Your task to perform on an android device: turn off improve location accuracy Image 0: 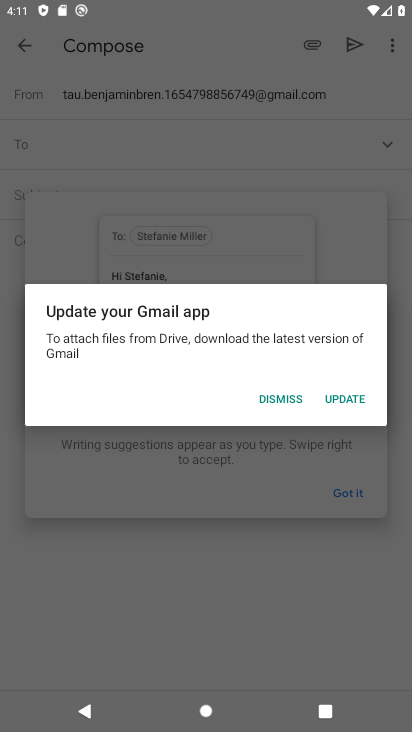
Step 0: press home button
Your task to perform on an android device: turn off improve location accuracy Image 1: 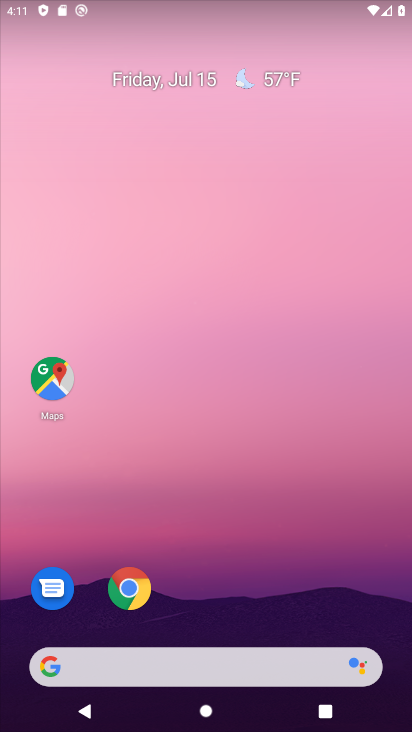
Step 1: drag from (223, 674) to (216, 164)
Your task to perform on an android device: turn off improve location accuracy Image 2: 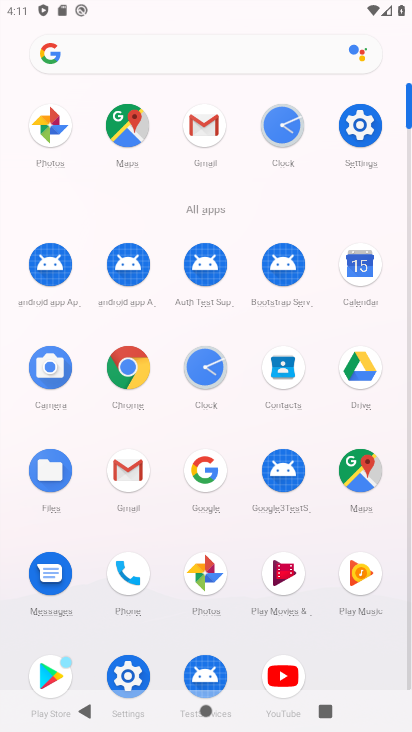
Step 2: click (359, 123)
Your task to perform on an android device: turn off improve location accuracy Image 3: 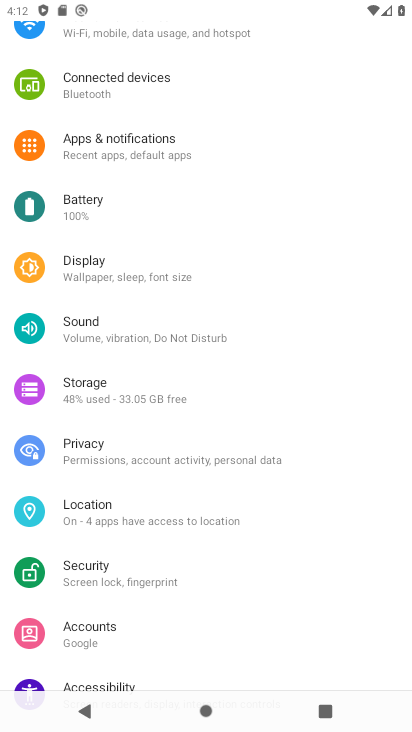
Step 3: click (117, 520)
Your task to perform on an android device: turn off improve location accuracy Image 4: 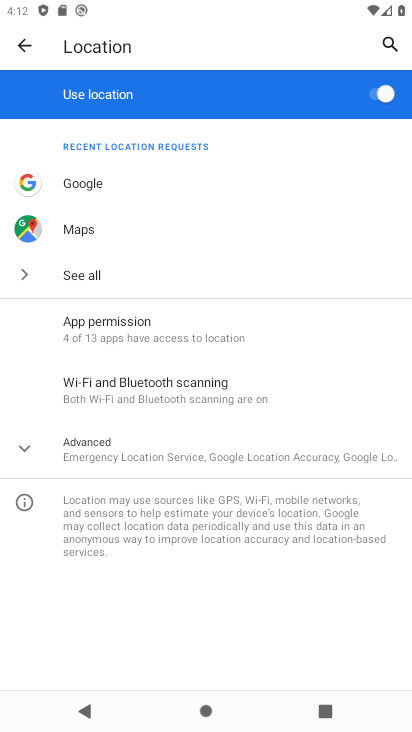
Step 4: click (136, 459)
Your task to perform on an android device: turn off improve location accuracy Image 5: 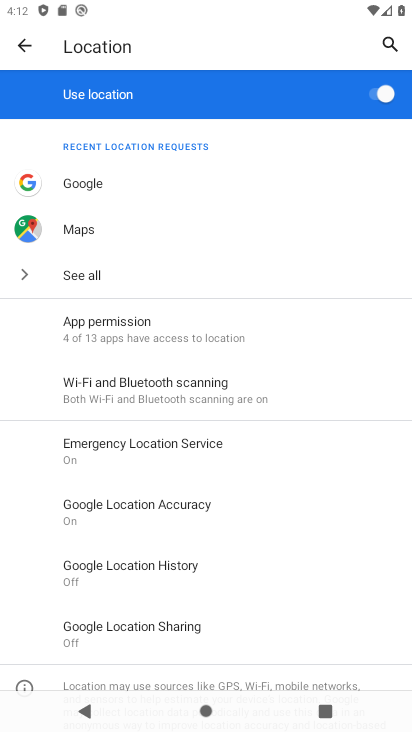
Step 5: click (130, 506)
Your task to perform on an android device: turn off improve location accuracy Image 6: 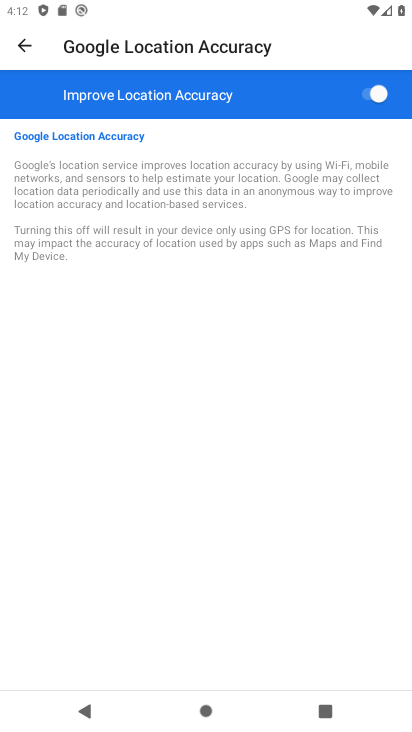
Step 6: click (365, 98)
Your task to perform on an android device: turn off improve location accuracy Image 7: 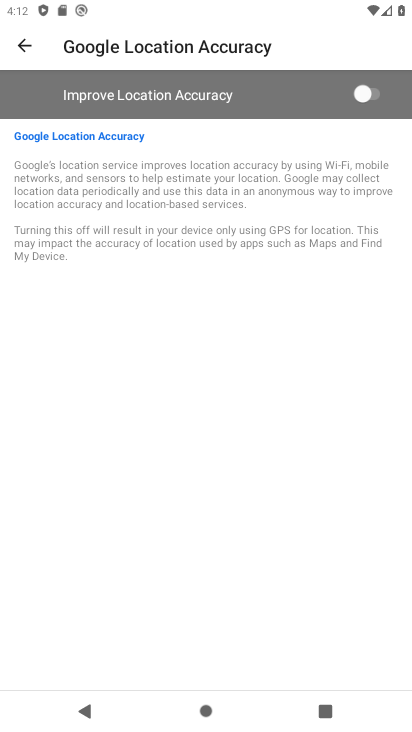
Step 7: task complete